Your task to perform on an android device: turn on javascript in the chrome app Image 0: 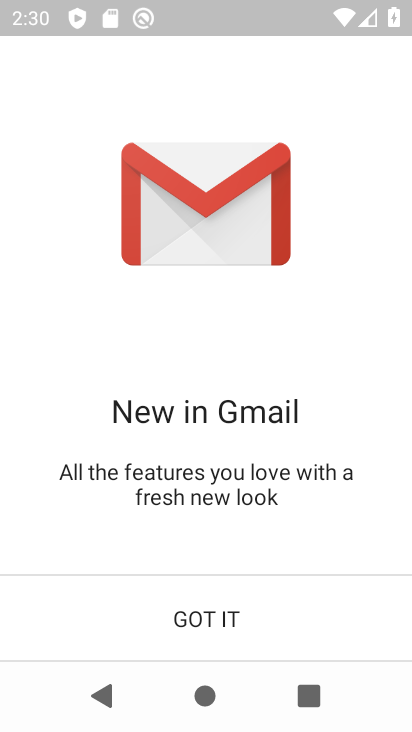
Step 0: press home button
Your task to perform on an android device: turn on javascript in the chrome app Image 1: 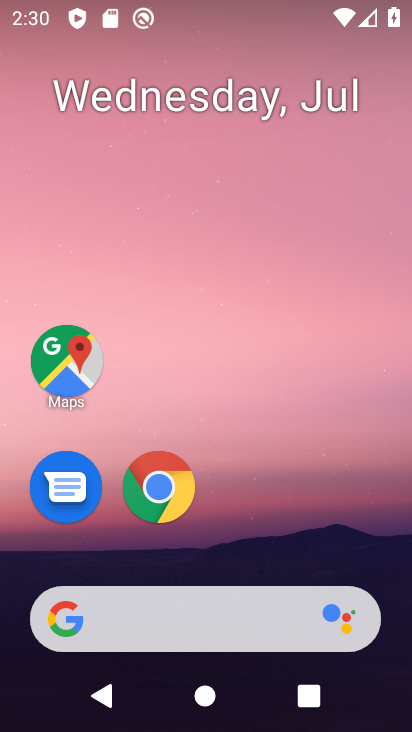
Step 1: drag from (273, 565) to (173, 498)
Your task to perform on an android device: turn on javascript in the chrome app Image 2: 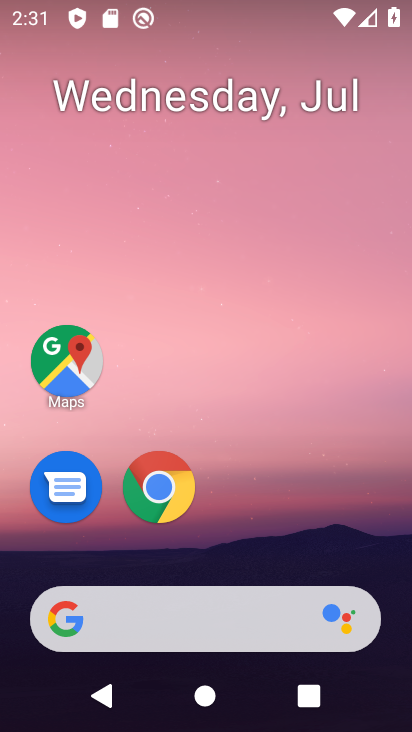
Step 2: click (172, 495)
Your task to perform on an android device: turn on javascript in the chrome app Image 3: 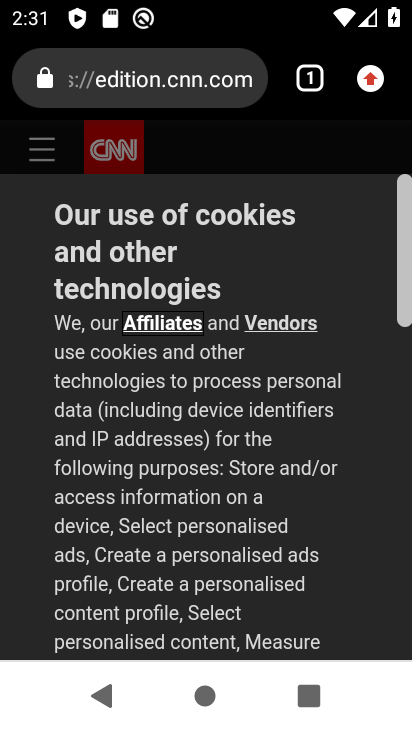
Step 3: drag from (344, 249) to (370, 68)
Your task to perform on an android device: turn on javascript in the chrome app Image 4: 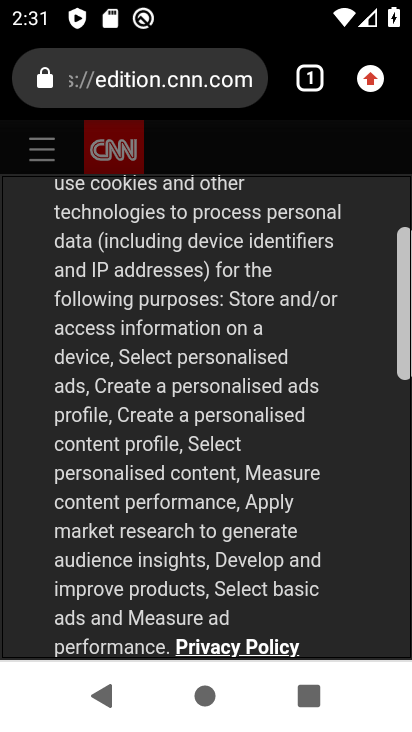
Step 4: click (368, 82)
Your task to perform on an android device: turn on javascript in the chrome app Image 5: 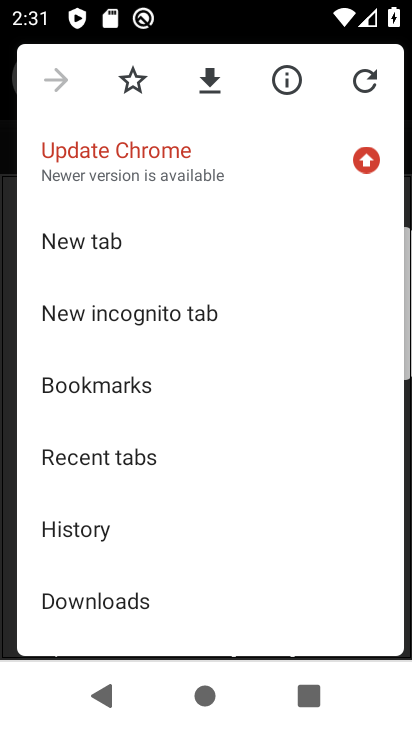
Step 5: drag from (255, 631) to (197, 234)
Your task to perform on an android device: turn on javascript in the chrome app Image 6: 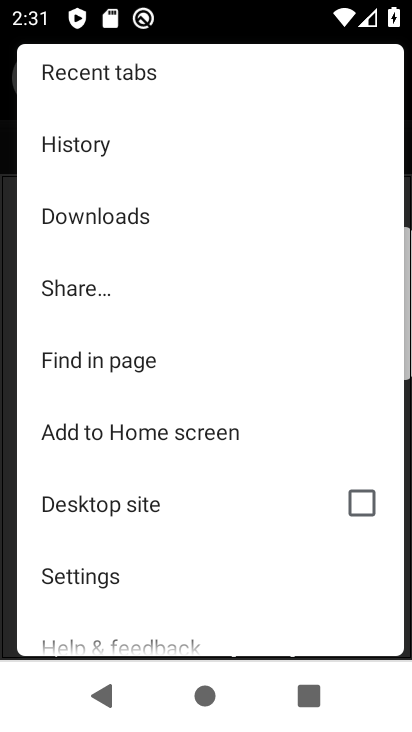
Step 6: click (115, 576)
Your task to perform on an android device: turn on javascript in the chrome app Image 7: 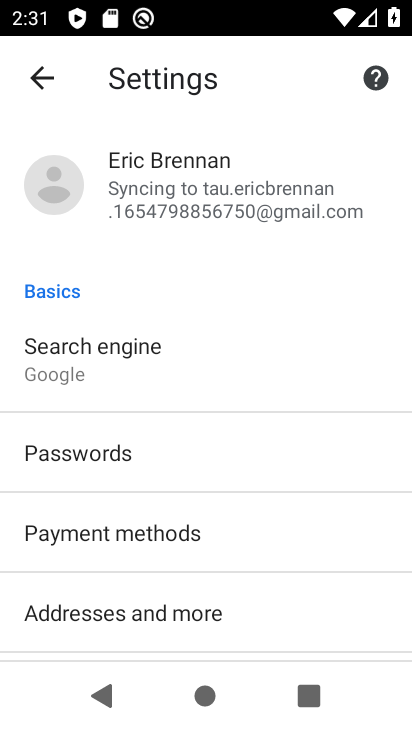
Step 7: drag from (223, 643) to (231, 307)
Your task to perform on an android device: turn on javascript in the chrome app Image 8: 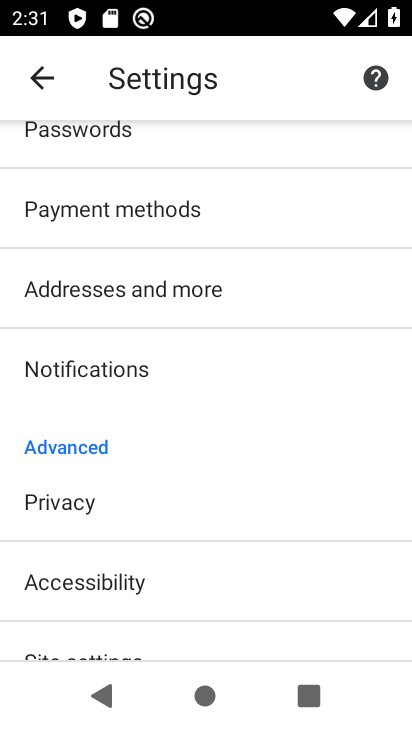
Step 8: drag from (213, 543) to (189, 295)
Your task to perform on an android device: turn on javascript in the chrome app Image 9: 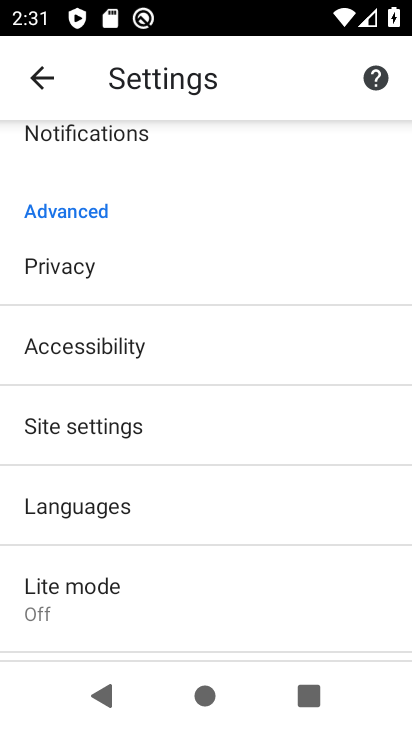
Step 9: click (193, 435)
Your task to perform on an android device: turn on javascript in the chrome app Image 10: 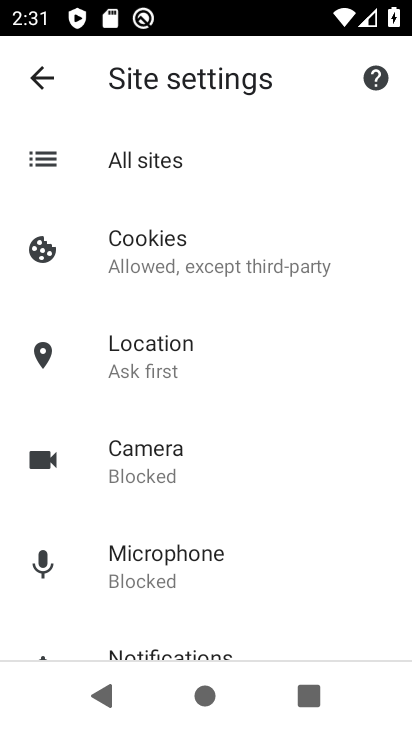
Step 10: drag from (179, 614) to (408, 553)
Your task to perform on an android device: turn on javascript in the chrome app Image 11: 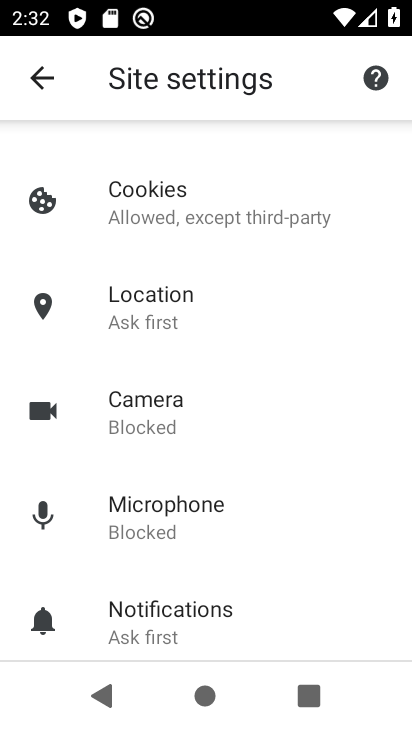
Step 11: drag from (286, 587) to (293, 177)
Your task to perform on an android device: turn on javascript in the chrome app Image 12: 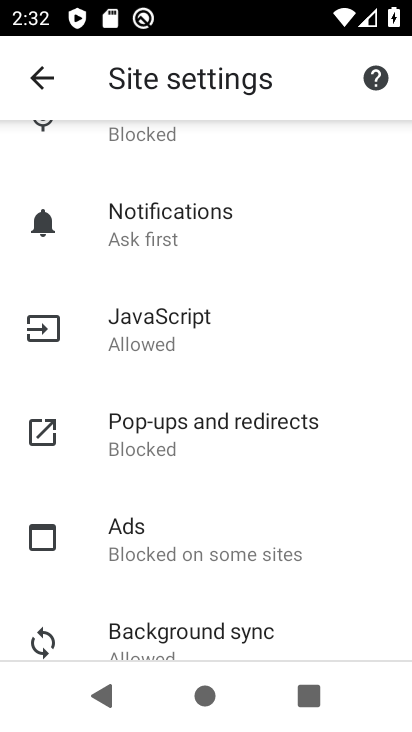
Step 12: click (234, 336)
Your task to perform on an android device: turn on javascript in the chrome app Image 13: 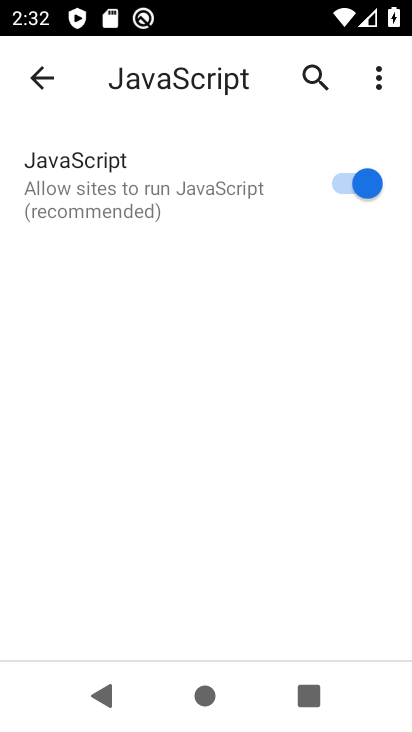
Step 13: task complete